Your task to perform on an android device: Turn off the flashlight Image 0: 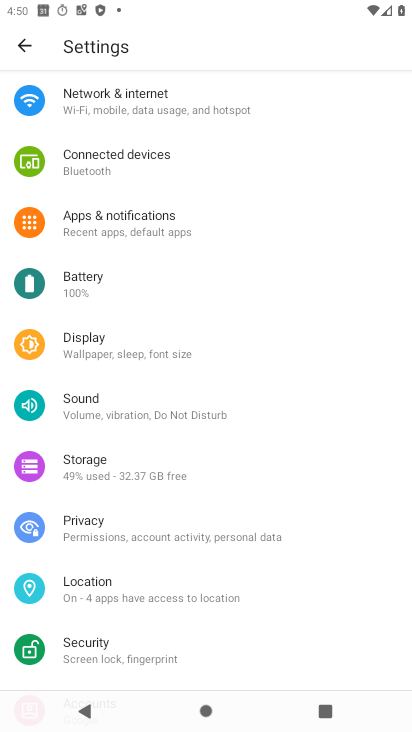
Step 0: press home button
Your task to perform on an android device: Turn off the flashlight Image 1: 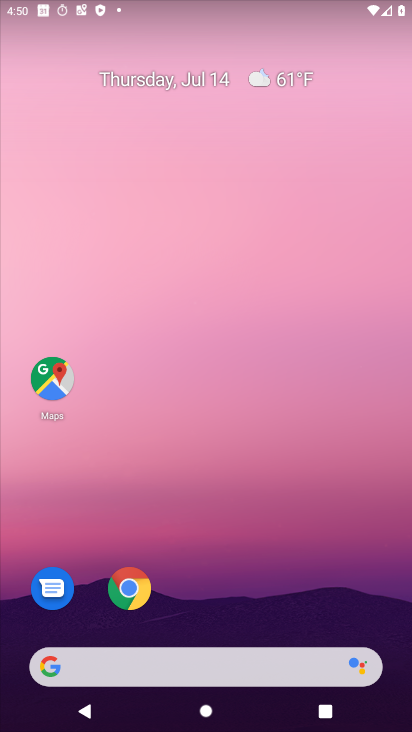
Step 1: drag from (181, 666) to (293, 104)
Your task to perform on an android device: Turn off the flashlight Image 2: 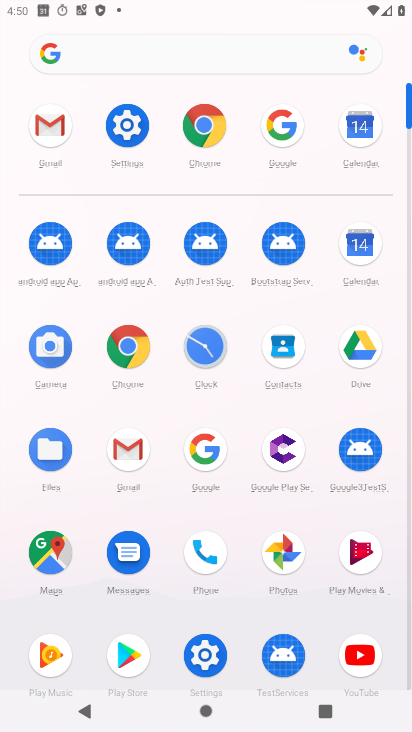
Step 2: click (126, 126)
Your task to perform on an android device: Turn off the flashlight Image 3: 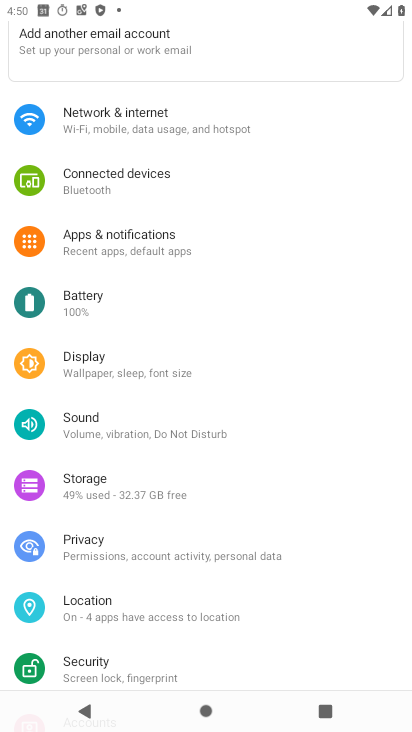
Step 3: click (85, 365)
Your task to perform on an android device: Turn off the flashlight Image 4: 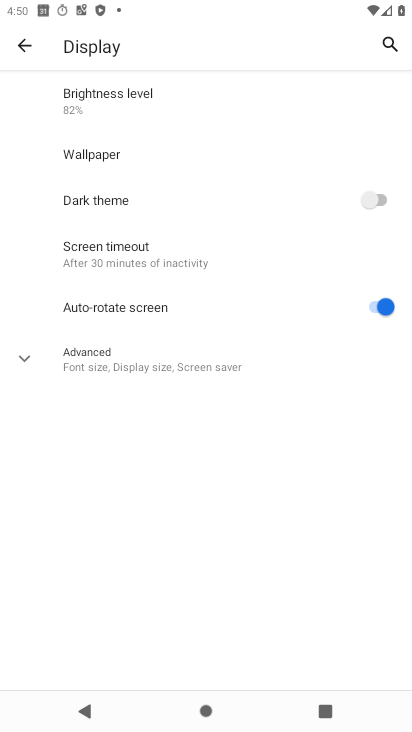
Step 4: click (90, 356)
Your task to perform on an android device: Turn off the flashlight Image 5: 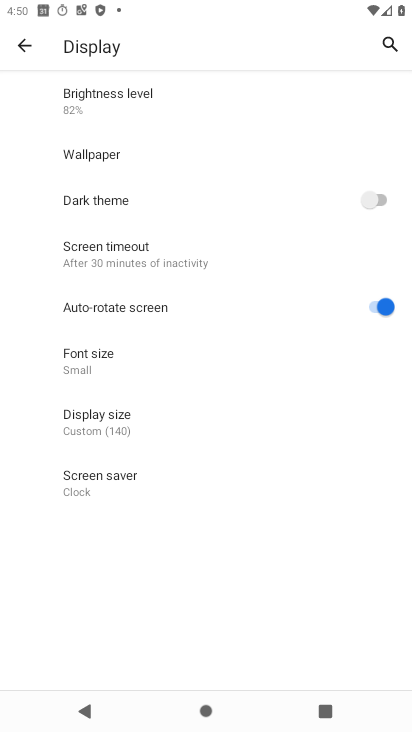
Step 5: click (99, 478)
Your task to perform on an android device: Turn off the flashlight Image 6: 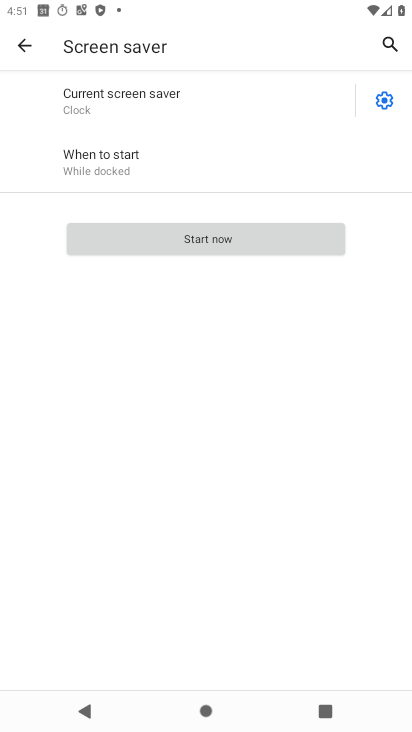
Step 6: press back button
Your task to perform on an android device: Turn off the flashlight Image 7: 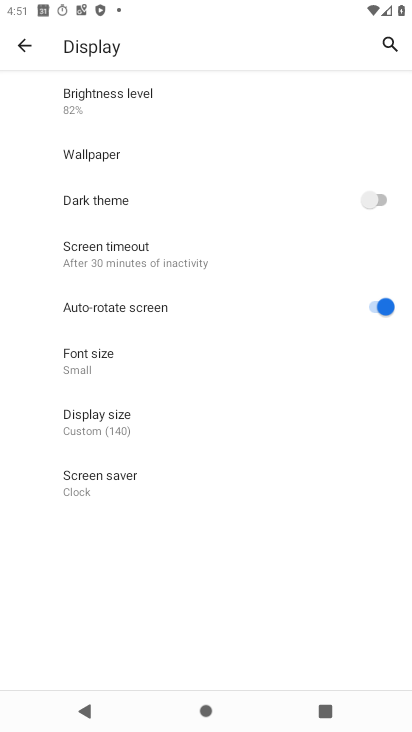
Step 7: click (98, 91)
Your task to perform on an android device: Turn off the flashlight Image 8: 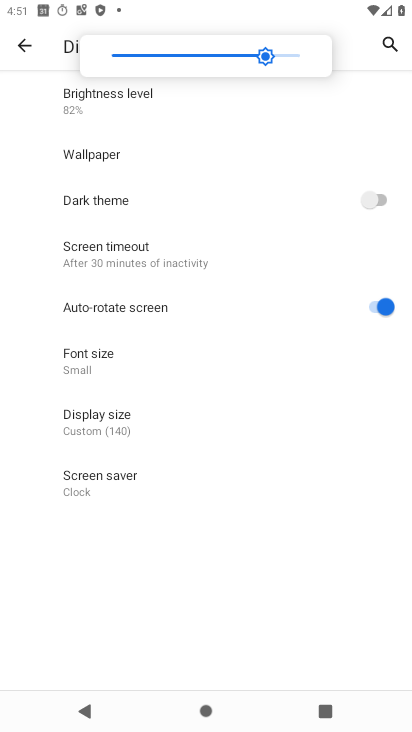
Step 8: task complete